Your task to perform on an android device: open a new tab in the chrome app Image 0: 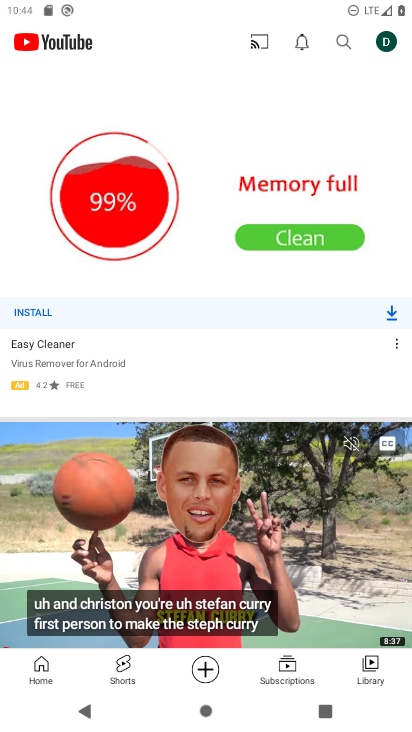
Step 0: press home button
Your task to perform on an android device: open a new tab in the chrome app Image 1: 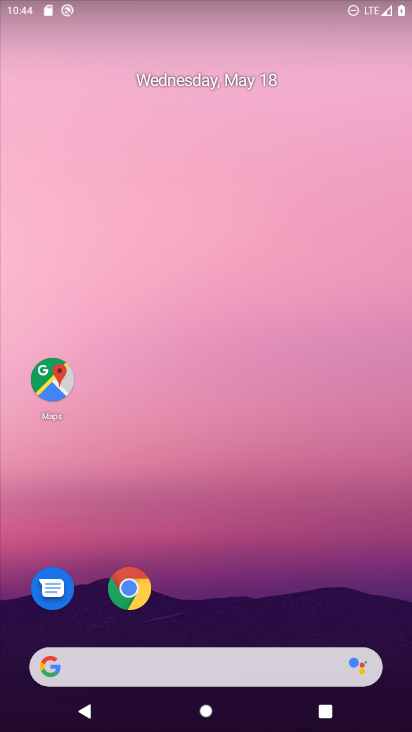
Step 1: click (126, 589)
Your task to perform on an android device: open a new tab in the chrome app Image 2: 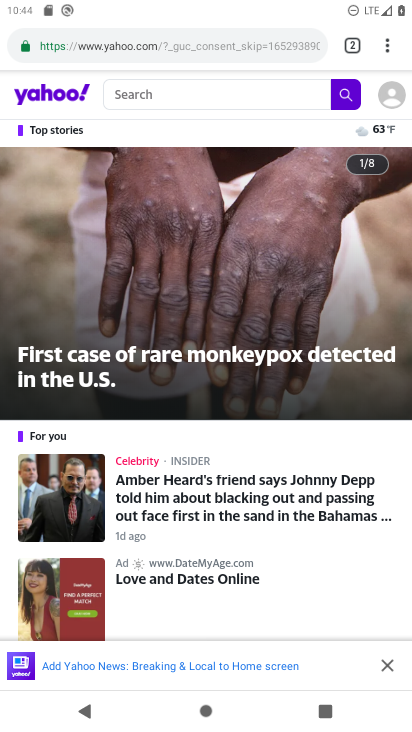
Step 2: click (385, 51)
Your task to perform on an android device: open a new tab in the chrome app Image 3: 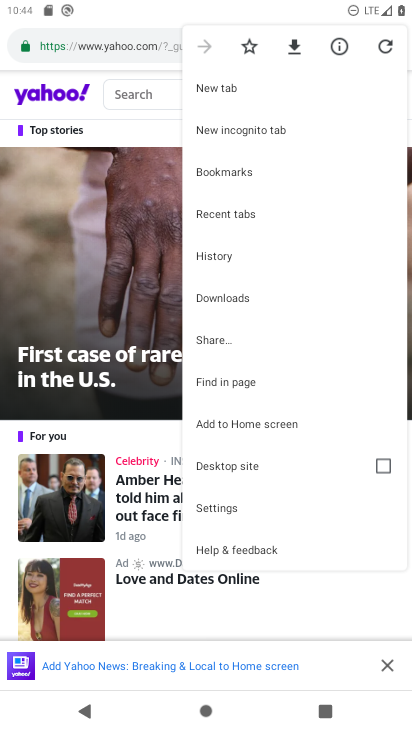
Step 3: click (206, 89)
Your task to perform on an android device: open a new tab in the chrome app Image 4: 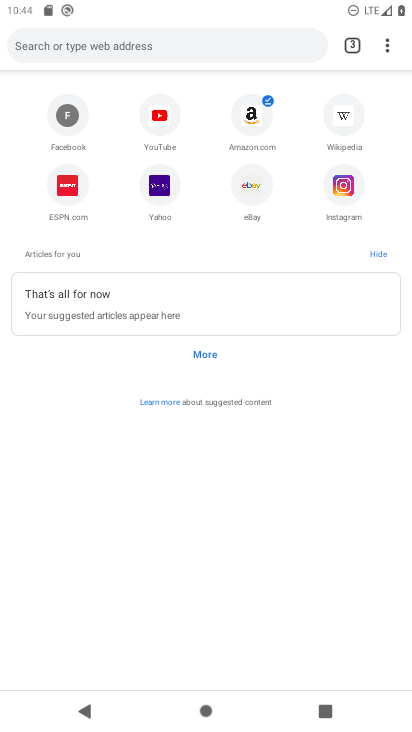
Step 4: task complete